Your task to perform on an android device: Open Yahoo.com Image 0: 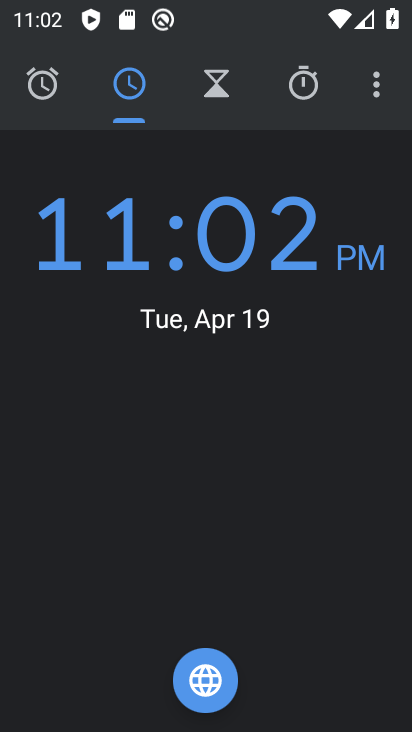
Step 0: press home button
Your task to perform on an android device: Open Yahoo.com Image 1: 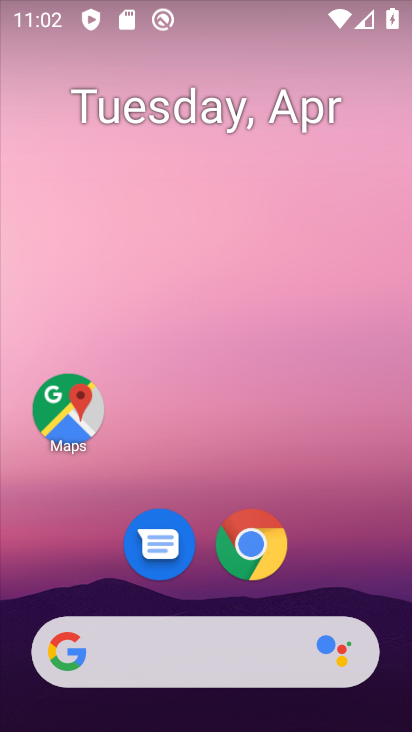
Step 1: click (258, 547)
Your task to perform on an android device: Open Yahoo.com Image 2: 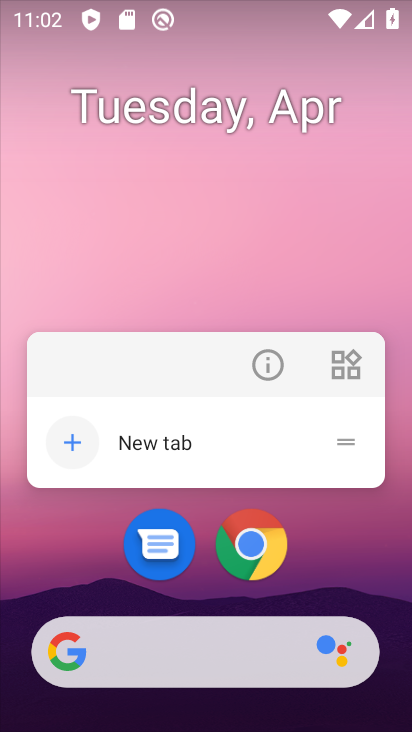
Step 2: click (269, 559)
Your task to perform on an android device: Open Yahoo.com Image 3: 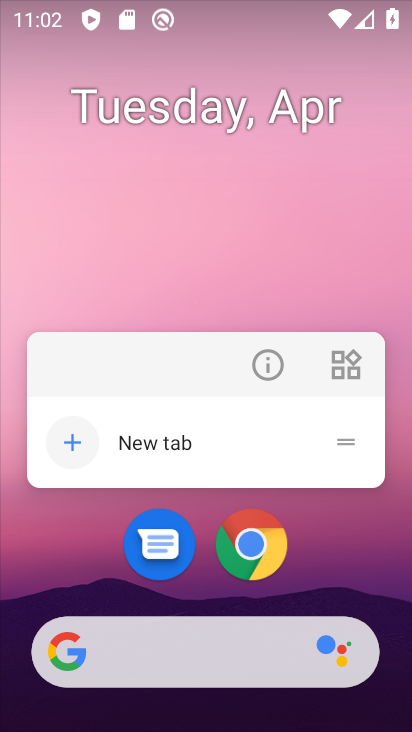
Step 3: drag from (322, 566) to (323, 175)
Your task to perform on an android device: Open Yahoo.com Image 4: 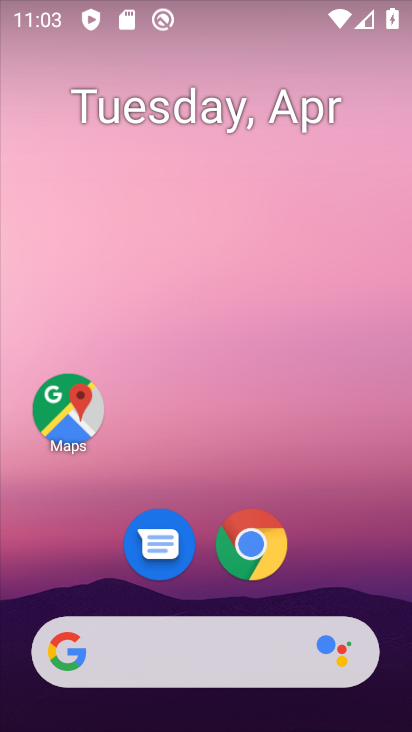
Step 4: click (323, 229)
Your task to perform on an android device: Open Yahoo.com Image 5: 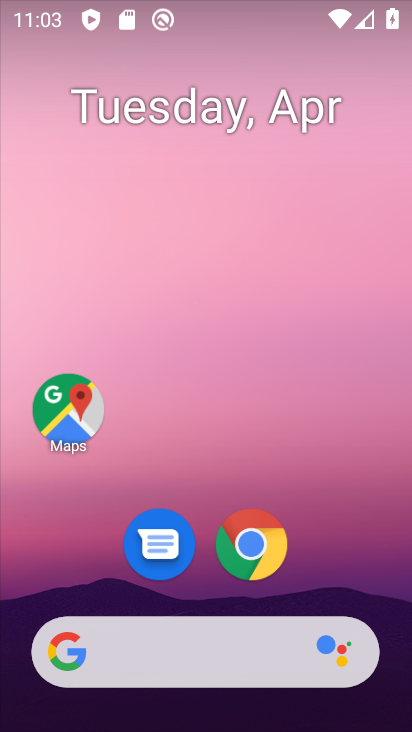
Step 5: drag from (323, 493) to (291, 199)
Your task to perform on an android device: Open Yahoo.com Image 6: 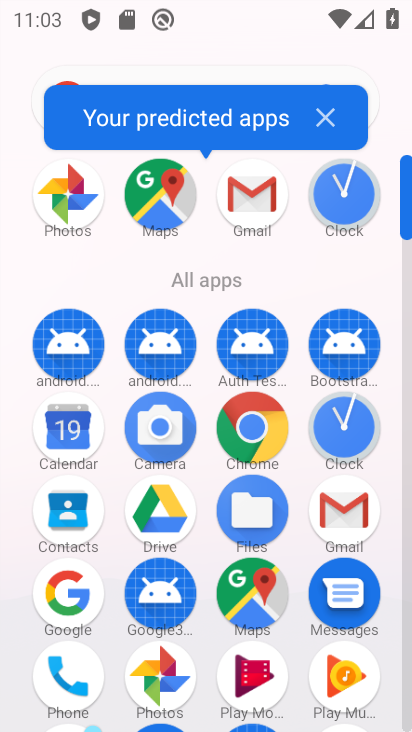
Step 6: click (248, 419)
Your task to perform on an android device: Open Yahoo.com Image 7: 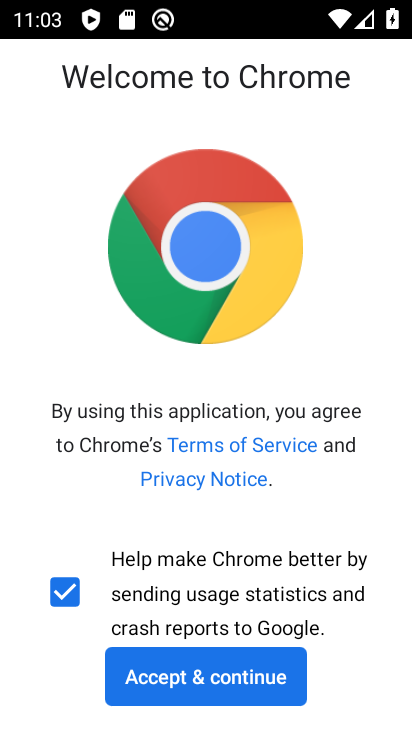
Step 7: click (186, 666)
Your task to perform on an android device: Open Yahoo.com Image 8: 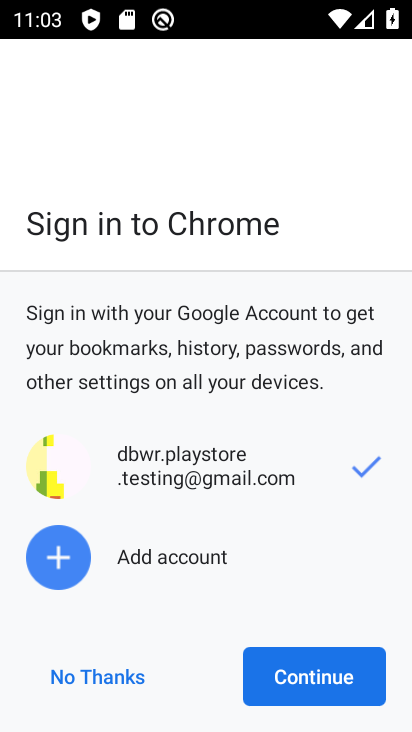
Step 8: click (308, 673)
Your task to perform on an android device: Open Yahoo.com Image 9: 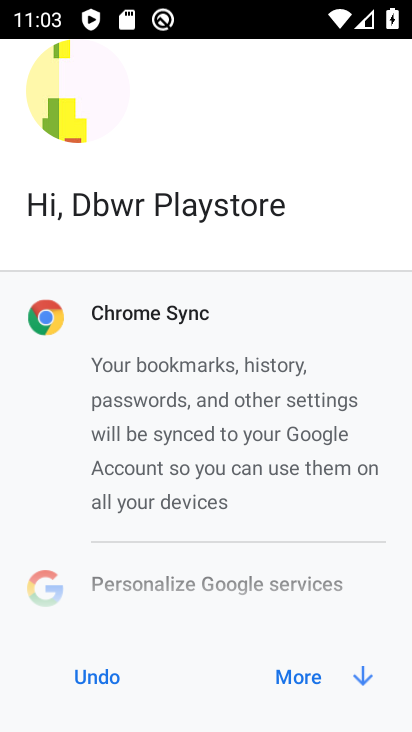
Step 9: click (308, 673)
Your task to perform on an android device: Open Yahoo.com Image 10: 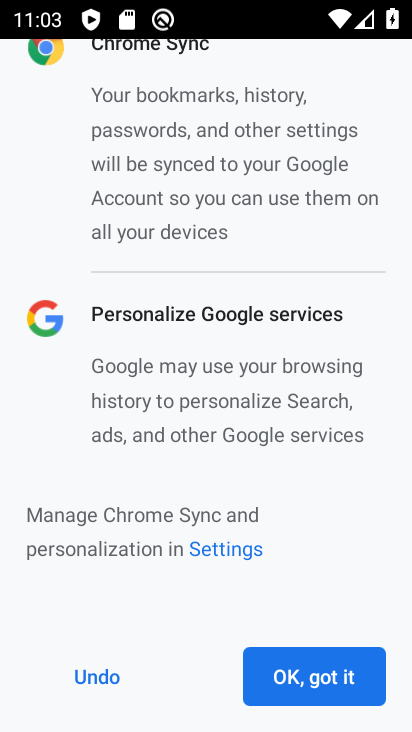
Step 10: click (309, 673)
Your task to perform on an android device: Open Yahoo.com Image 11: 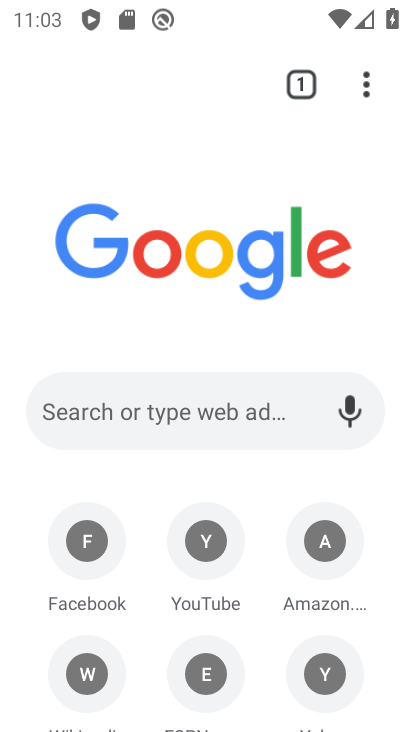
Step 11: click (190, 408)
Your task to perform on an android device: Open Yahoo.com Image 12: 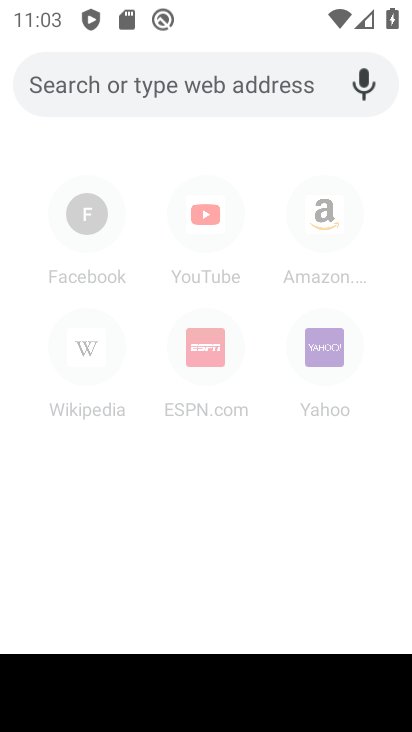
Step 12: type "yahoo.com"
Your task to perform on an android device: Open Yahoo.com Image 13: 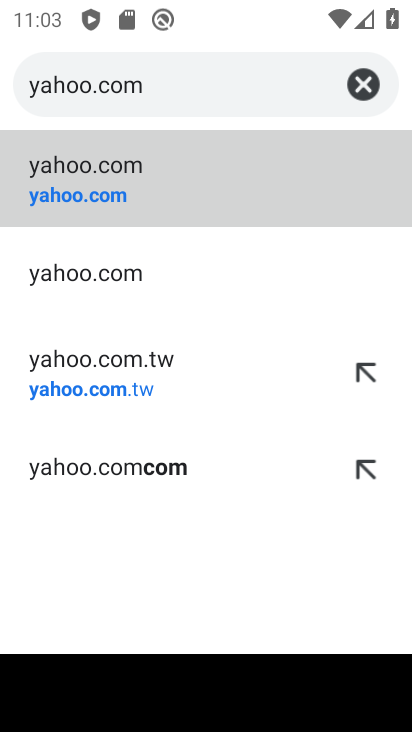
Step 13: click (49, 191)
Your task to perform on an android device: Open Yahoo.com Image 14: 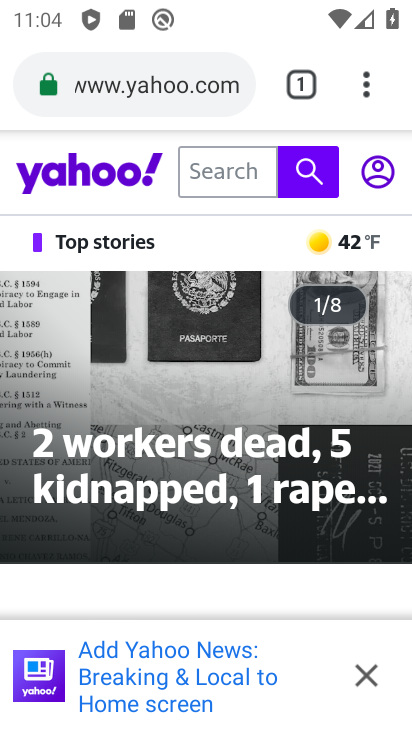
Step 14: press home button
Your task to perform on an android device: Open Yahoo.com Image 15: 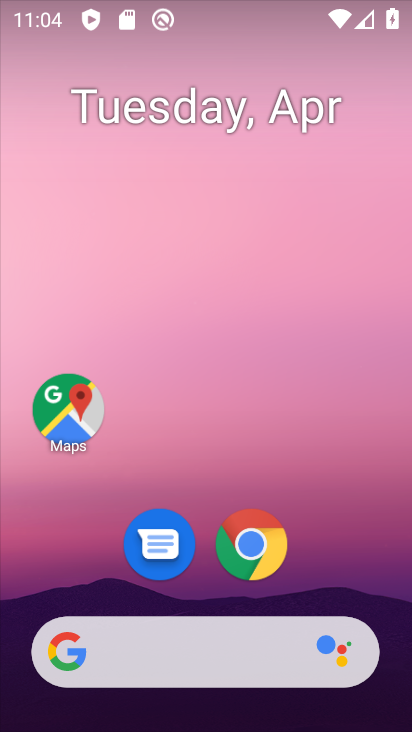
Step 15: drag from (345, 475) to (323, 166)
Your task to perform on an android device: Open Yahoo.com Image 16: 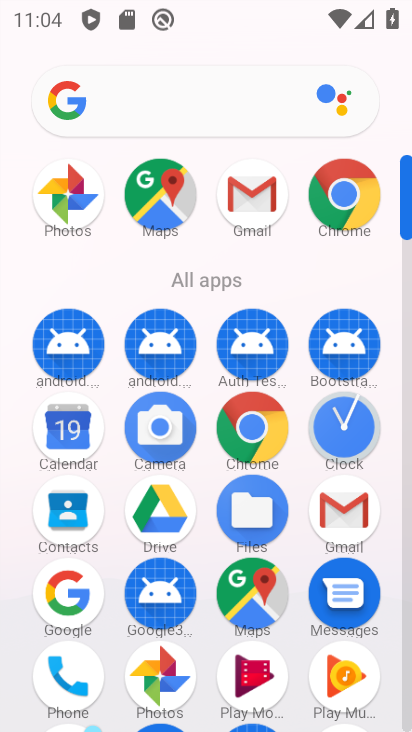
Step 16: click (359, 192)
Your task to perform on an android device: Open Yahoo.com Image 17: 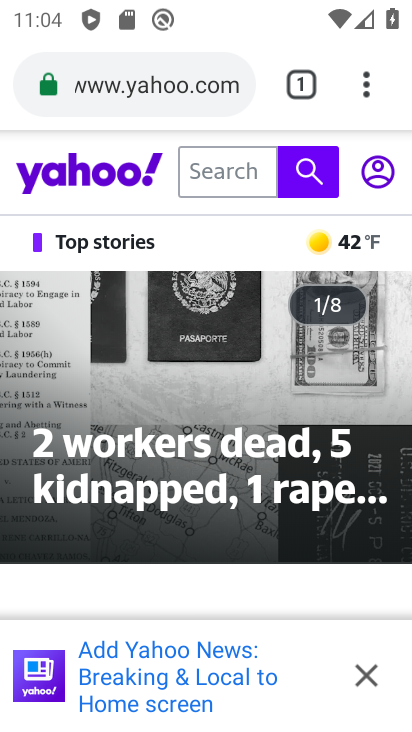
Step 17: click (301, 81)
Your task to perform on an android device: Open Yahoo.com Image 18: 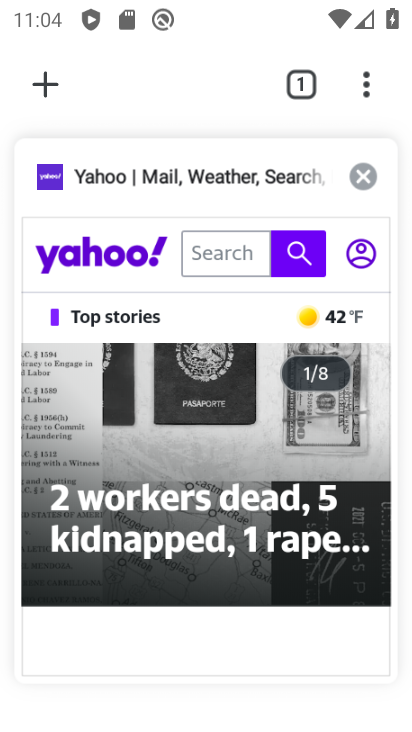
Step 18: click (39, 87)
Your task to perform on an android device: Open Yahoo.com Image 19: 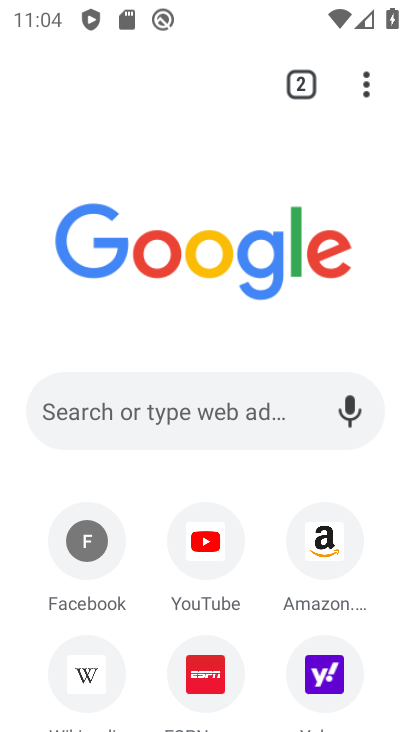
Step 19: click (186, 412)
Your task to perform on an android device: Open Yahoo.com Image 20: 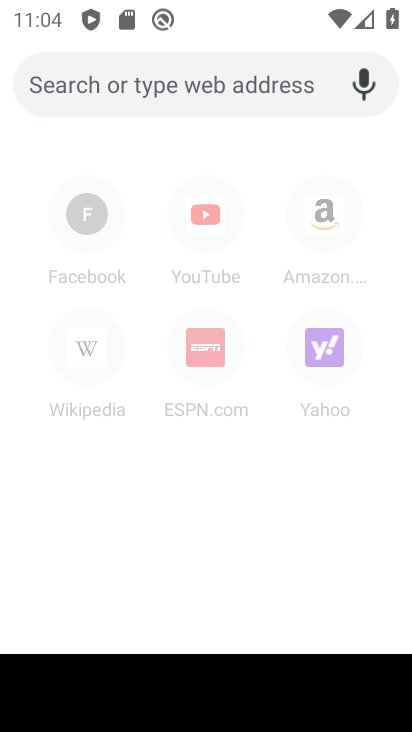
Step 20: type "yahoo.com"
Your task to perform on an android device: Open Yahoo.com Image 21: 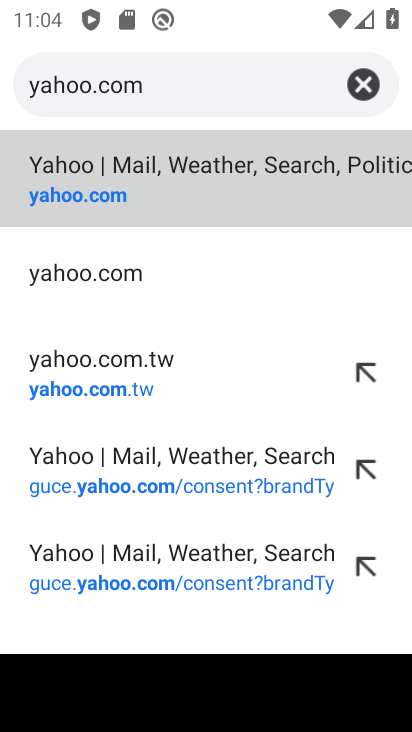
Step 21: click (120, 277)
Your task to perform on an android device: Open Yahoo.com Image 22: 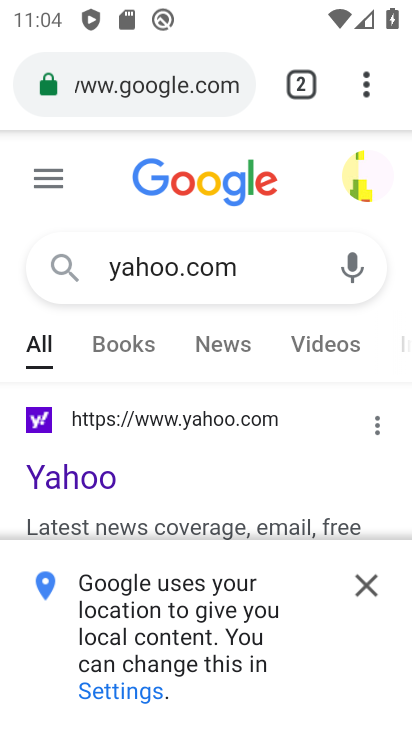
Step 22: click (373, 594)
Your task to perform on an android device: Open Yahoo.com Image 23: 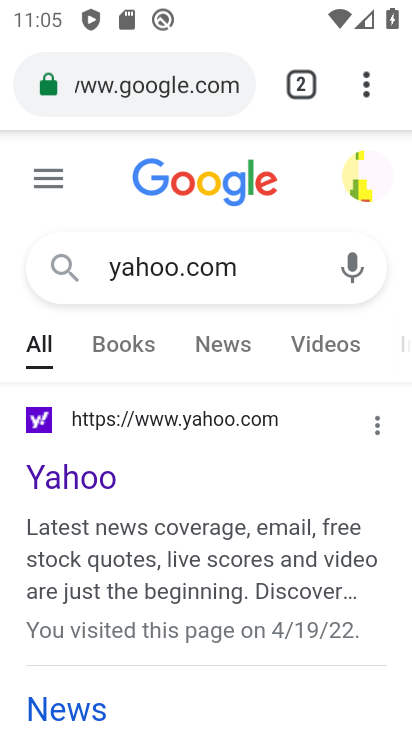
Step 23: click (78, 479)
Your task to perform on an android device: Open Yahoo.com Image 24: 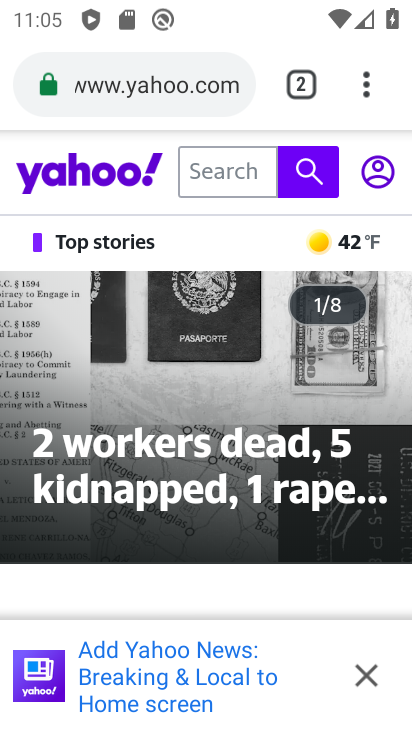
Step 24: task complete